Your task to perform on an android device: Clear the cart on amazon.com. Search for "macbook" on amazon.com, select the first entry, and add it to the cart. Image 0: 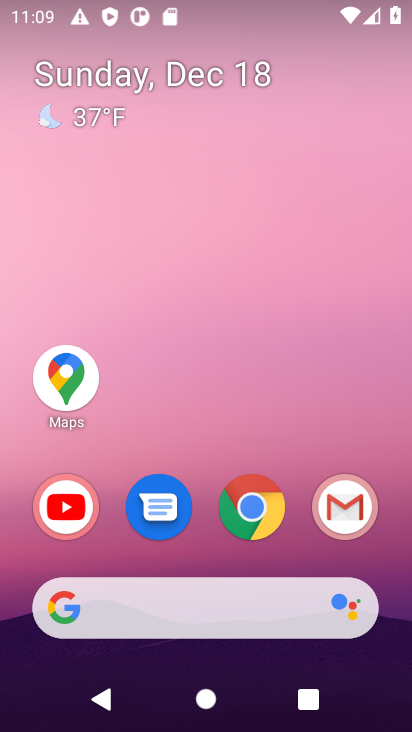
Step 0: click (262, 518)
Your task to perform on an android device: Clear the cart on amazon.com. Search for "macbook" on amazon.com, select the first entry, and add it to the cart. Image 1: 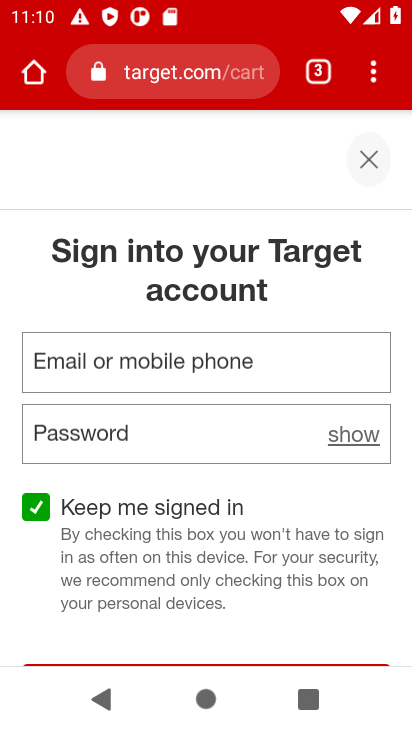
Step 1: click (178, 71)
Your task to perform on an android device: Clear the cart on amazon.com. Search for "macbook" on amazon.com, select the first entry, and add it to the cart. Image 2: 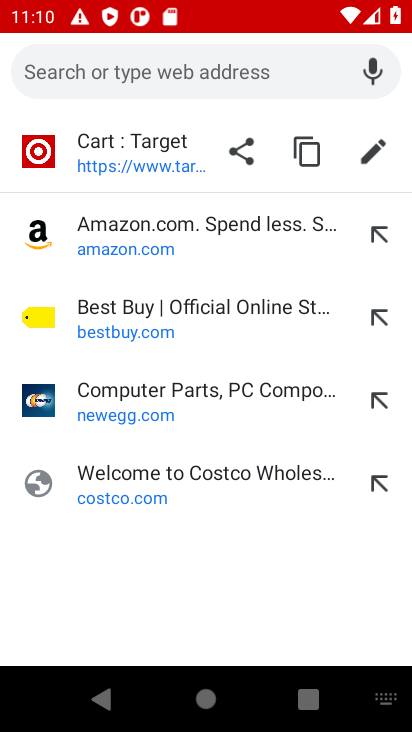
Step 2: click (104, 237)
Your task to perform on an android device: Clear the cart on amazon.com. Search for "macbook" on amazon.com, select the first entry, and add it to the cart. Image 3: 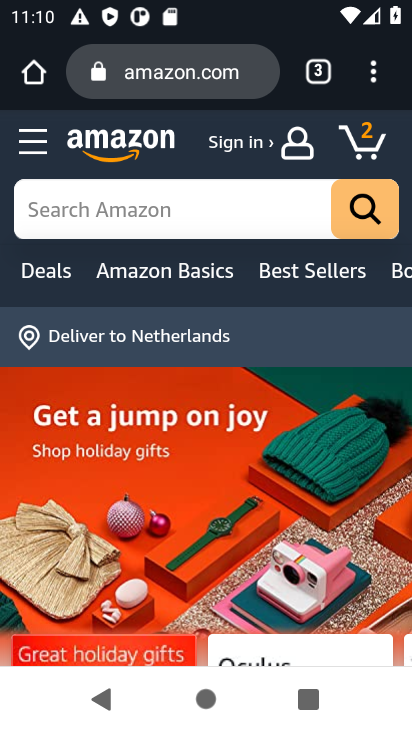
Step 3: click (372, 143)
Your task to perform on an android device: Clear the cart on amazon.com. Search for "macbook" on amazon.com, select the first entry, and add it to the cart. Image 4: 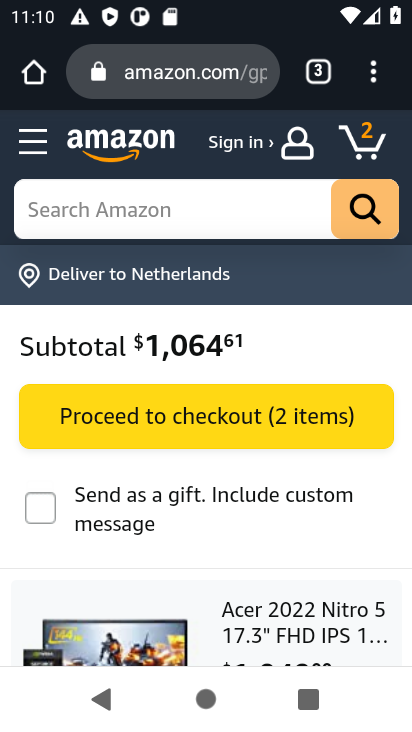
Step 4: drag from (169, 462) to (162, 90)
Your task to perform on an android device: Clear the cart on amazon.com. Search for "macbook" on amazon.com, select the first entry, and add it to the cart. Image 5: 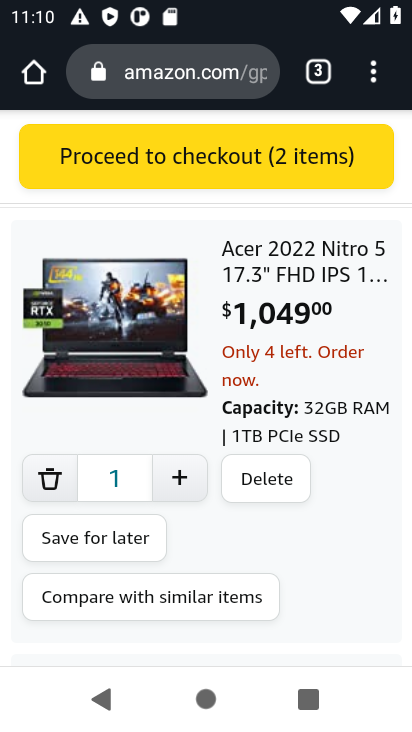
Step 5: click (245, 476)
Your task to perform on an android device: Clear the cart on amazon.com. Search for "macbook" on amazon.com, select the first entry, and add it to the cart. Image 6: 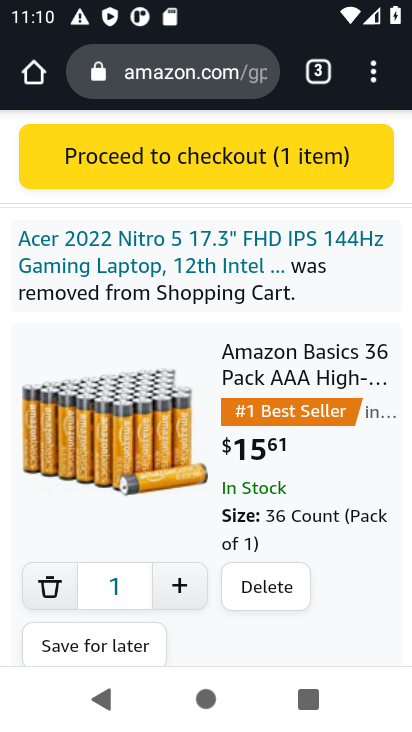
Step 6: click (248, 583)
Your task to perform on an android device: Clear the cart on amazon.com. Search for "macbook" on amazon.com, select the first entry, and add it to the cart. Image 7: 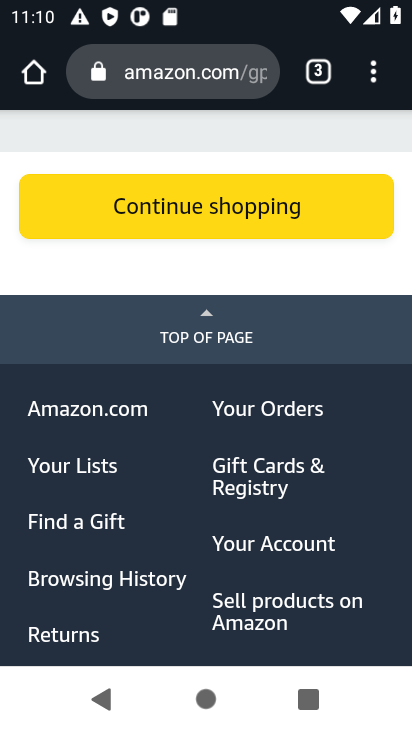
Step 7: drag from (170, 188) to (133, 516)
Your task to perform on an android device: Clear the cart on amazon.com. Search for "macbook" on amazon.com, select the first entry, and add it to the cart. Image 8: 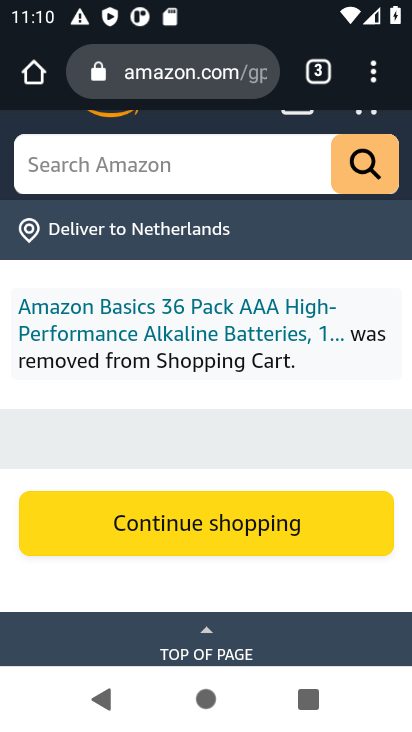
Step 8: click (122, 154)
Your task to perform on an android device: Clear the cart on amazon.com. Search for "macbook" on amazon.com, select the first entry, and add it to the cart. Image 9: 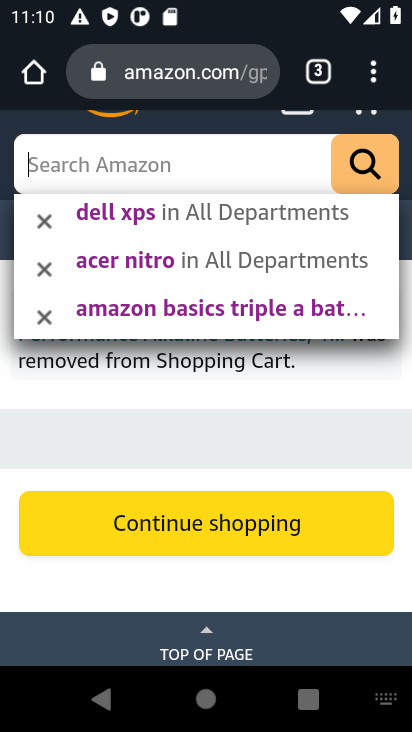
Step 9: type "macbook"
Your task to perform on an android device: Clear the cart on amazon.com. Search for "macbook" on amazon.com, select the first entry, and add it to the cart. Image 10: 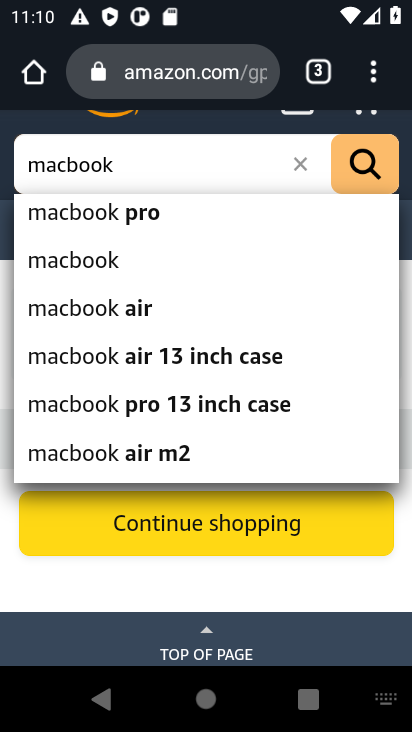
Step 10: click (56, 269)
Your task to perform on an android device: Clear the cart on amazon.com. Search for "macbook" on amazon.com, select the first entry, and add it to the cart. Image 11: 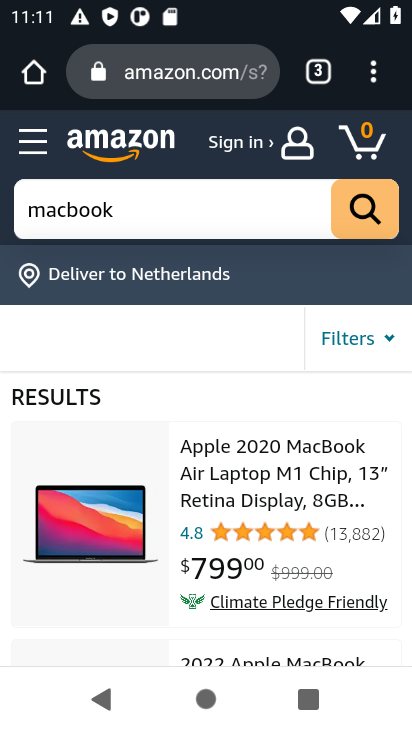
Step 11: drag from (257, 488) to (258, 373)
Your task to perform on an android device: Clear the cart on amazon.com. Search for "macbook" on amazon.com, select the first entry, and add it to the cart. Image 12: 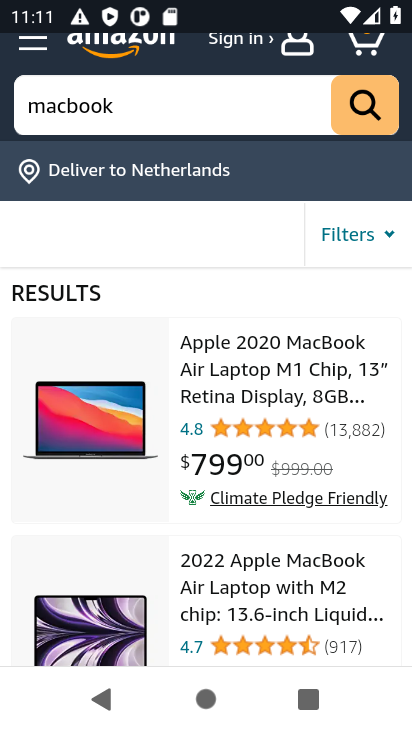
Step 12: click (274, 391)
Your task to perform on an android device: Clear the cart on amazon.com. Search for "macbook" on amazon.com, select the first entry, and add it to the cart. Image 13: 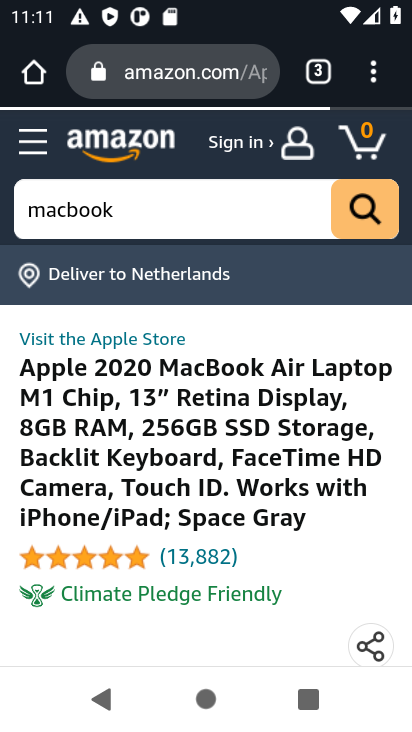
Step 13: task complete